Your task to perform on an android device: Clear the shopping cart on bestbuy. Search for "asus rog" on bestbuy, select the first entry, and add it to the cart. Image 0: 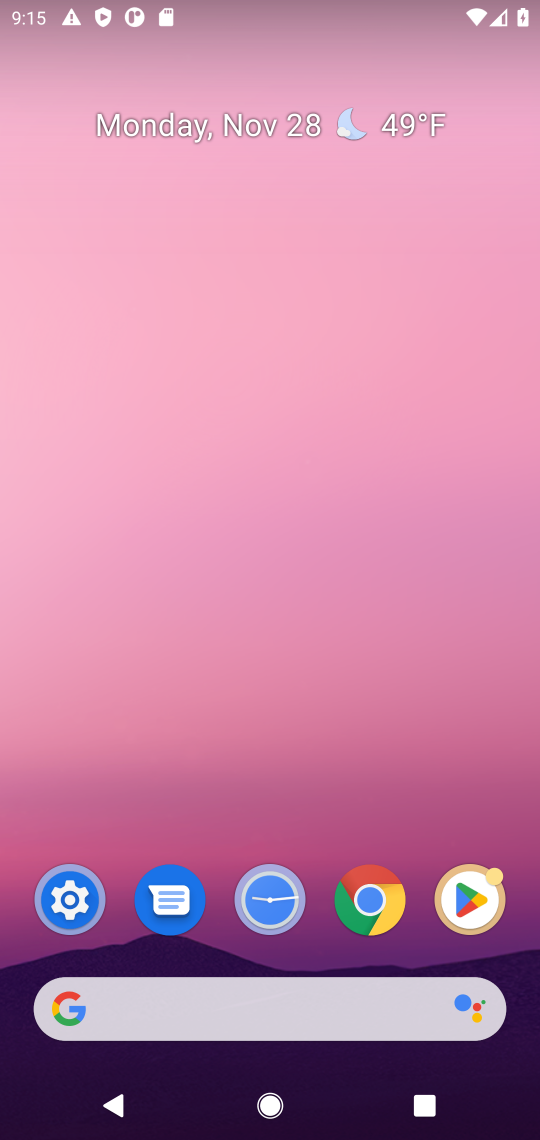
Step 0: task complete